Your task to perform on an android device: Do I have any events this weekend? Image 0: 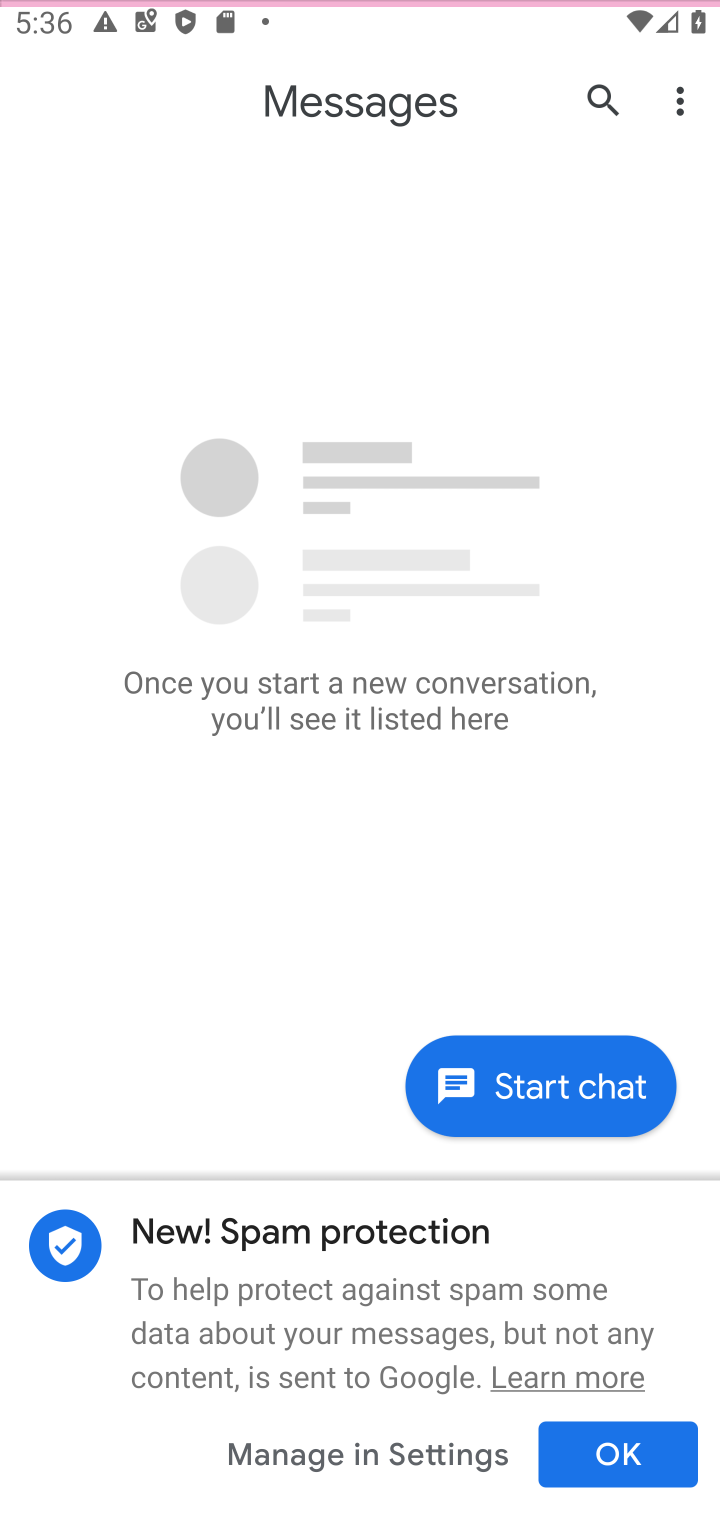
Step 0: drag from (412, 374) to (414, 288)
Your task to perform on an android device: Do I have any events this weekend? Image 1: 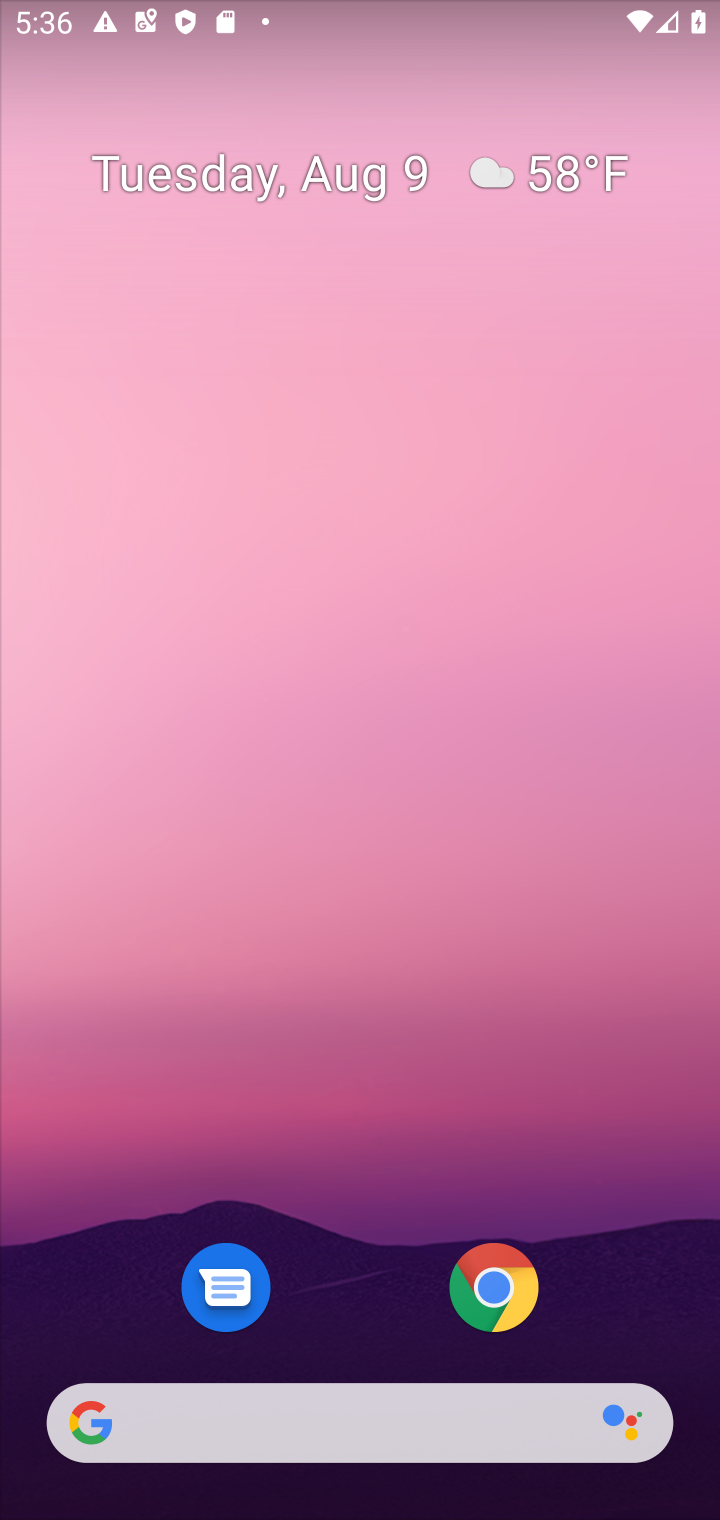
Step 1: task complete